Your task to perform on an android device: Open calendar and show me the fourth week of next month Image 0: 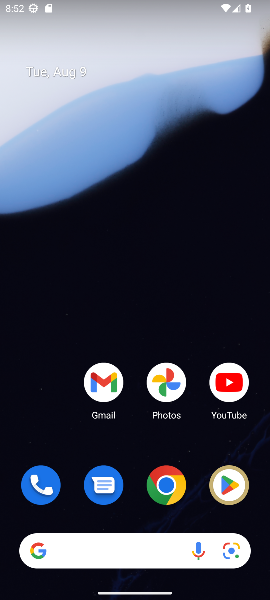
Step 0: drag from (138, 462) to (56, 0)
Your task to perform on an android device: Open calendar and show me the fourth week of next month Image 1: 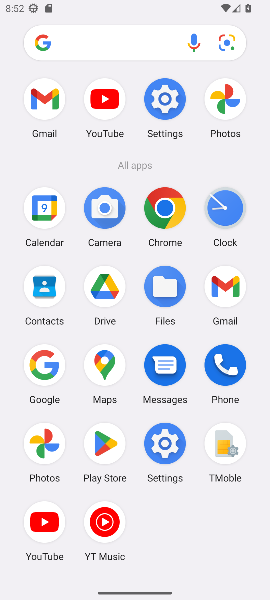
Step 1: click (35, 214)
Your task to perform on an android device: Open calendar and show me the fourth week of next month Image 2: 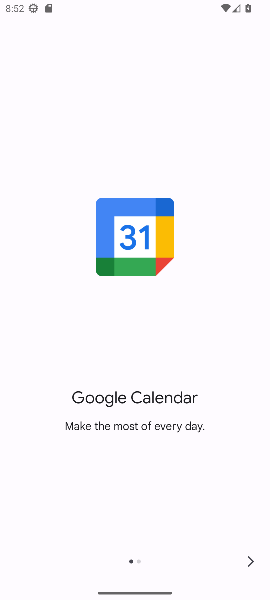
Step 2: click (250, 563)
Your task to perform on an android device: Open calendar and show me the fourth week of next month Image 3: 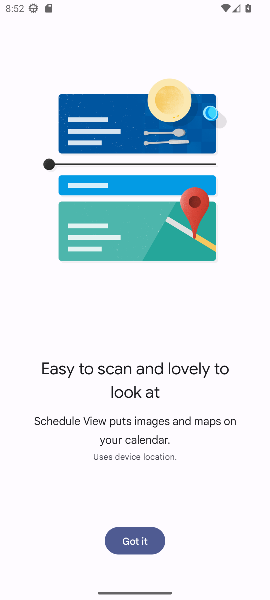
Step 3: click (146, 538)
Your task to perform on an android device: Open calendar and show me the fourth week of next month Image 4: 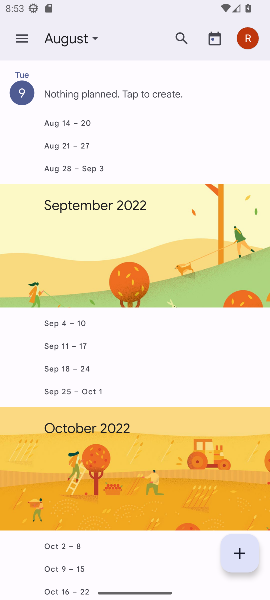
Step 4: click (20, 29)
Your task to perform on an android device: Open calendar and show me the fourth week of next month Image 5: 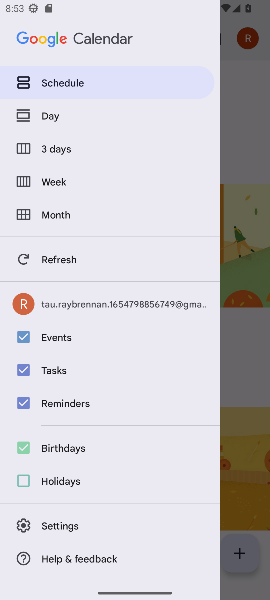
Step 5: click (50, 180)
Your task to perform on an android device: Open calendar and show me the fourth week of next month Image 6: 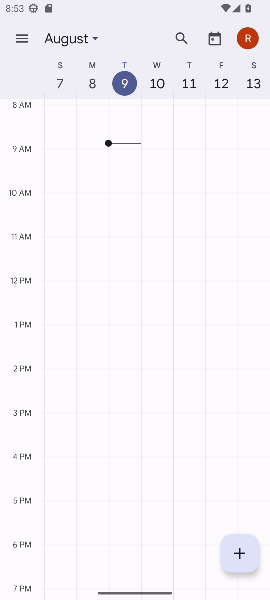
Step 6: click (87, 34)
Your task to perform on an android device: Open calendar and show me the fourth week of next month Image 7: 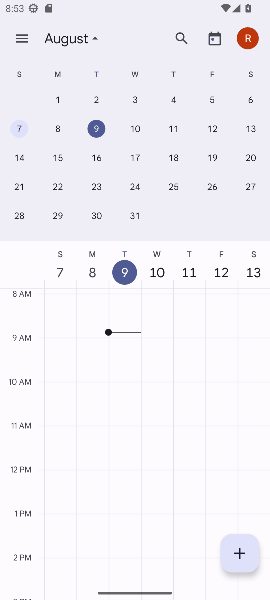
Step 7: drag from (250, 170) to (11, 152)
Your task to perform on an android device: Open calendar and show me the fourth week of next month Image 8: 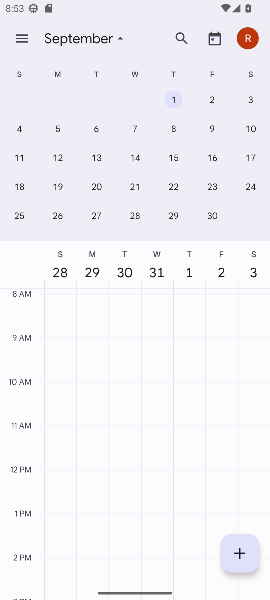
Step 8: click (133, 215)
Your task to perform on an android device: Open calendar and show me the fourth week of next month Image 9: 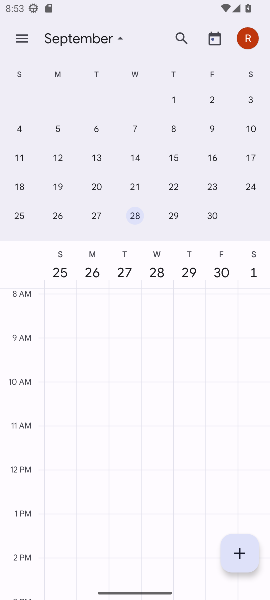
Step 9: task complete